Your task to perform on an android device: Search for "razer blade" on costco, select the first entry, and add it to the cart. Image 0: 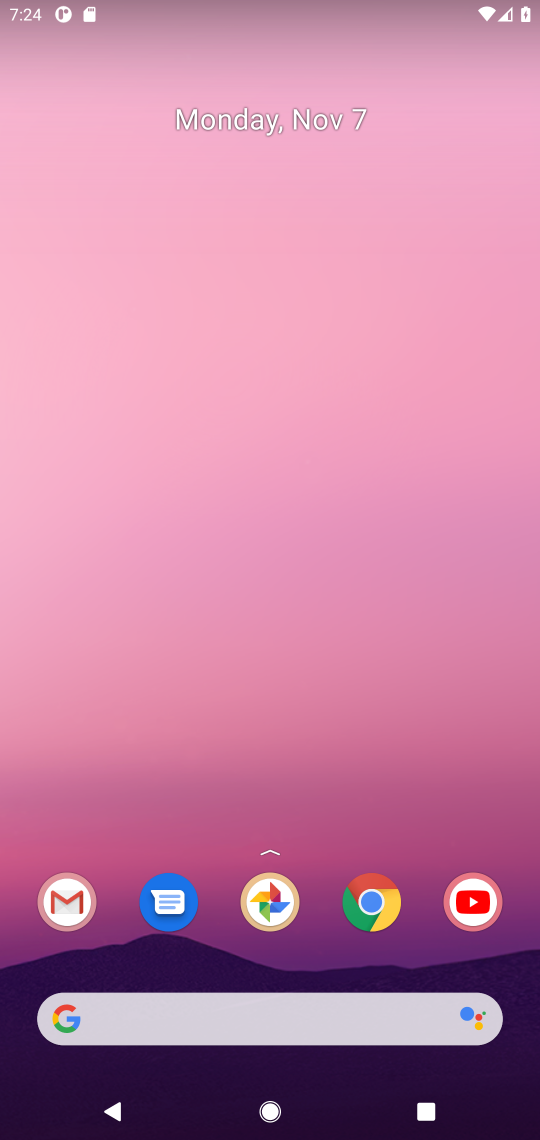
Step 0: click (371, 917)
Your task to perform on an android device: Search for "razer blade" on costco, select the first entry, and add it to the cart. Image 1: 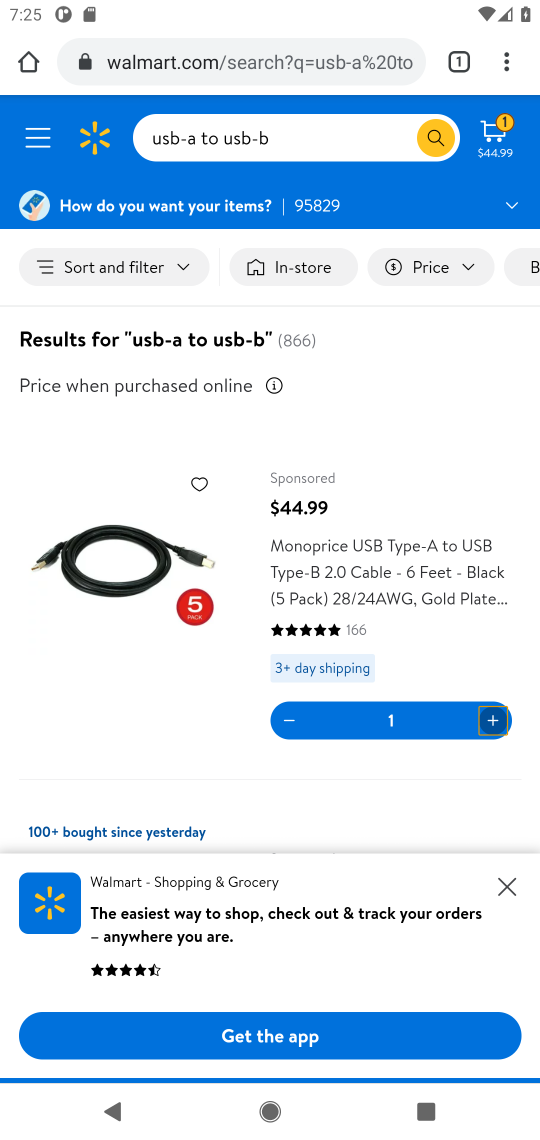
Step 1: click (219, 58)
Your task to perform on an android device: Search for "razer blade" on costco, select the first entry, and add it to the cart. Image 2: 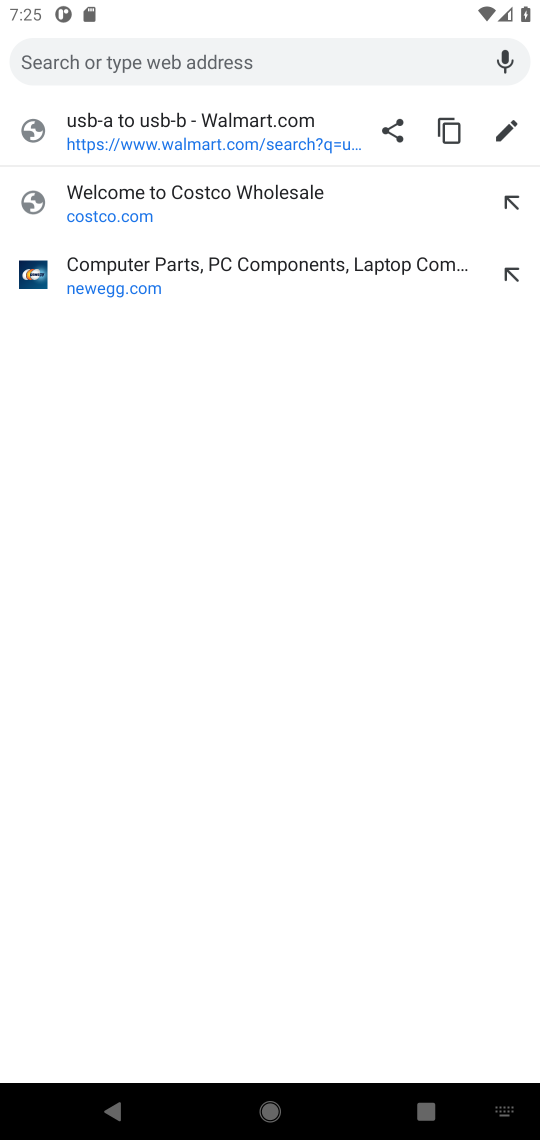
Step 2: click (130, 220)
Your task to perform on an android device: Search for "razer blade" on costco, select the first entry, and add it to the cart. Image 3: 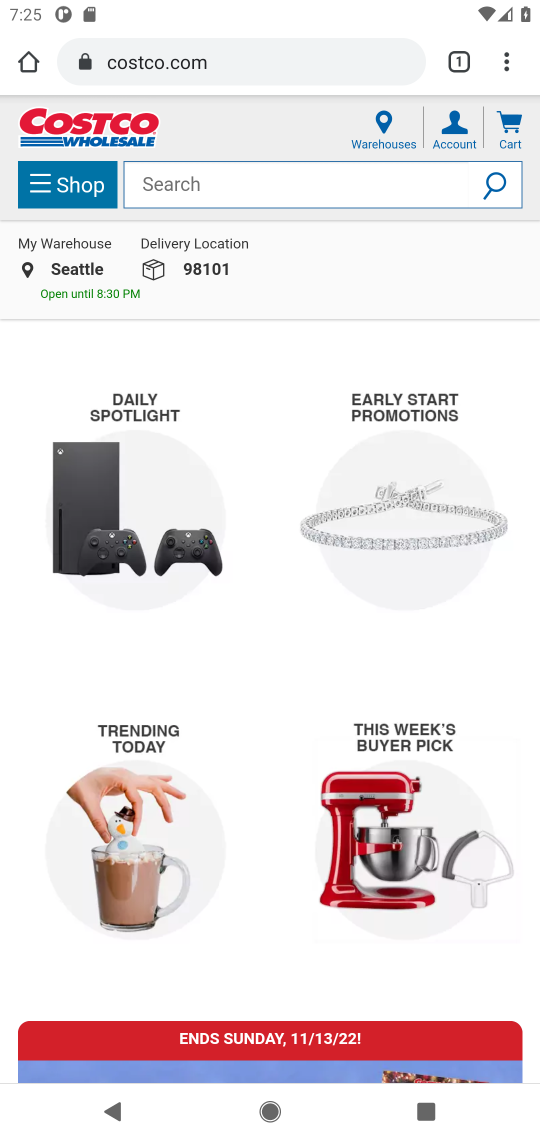
Step 3: click (235, 183)
Your task to perform on an android device: Search for "razer blade" on costco, select the first entry, and add it to the cart. Image 4: 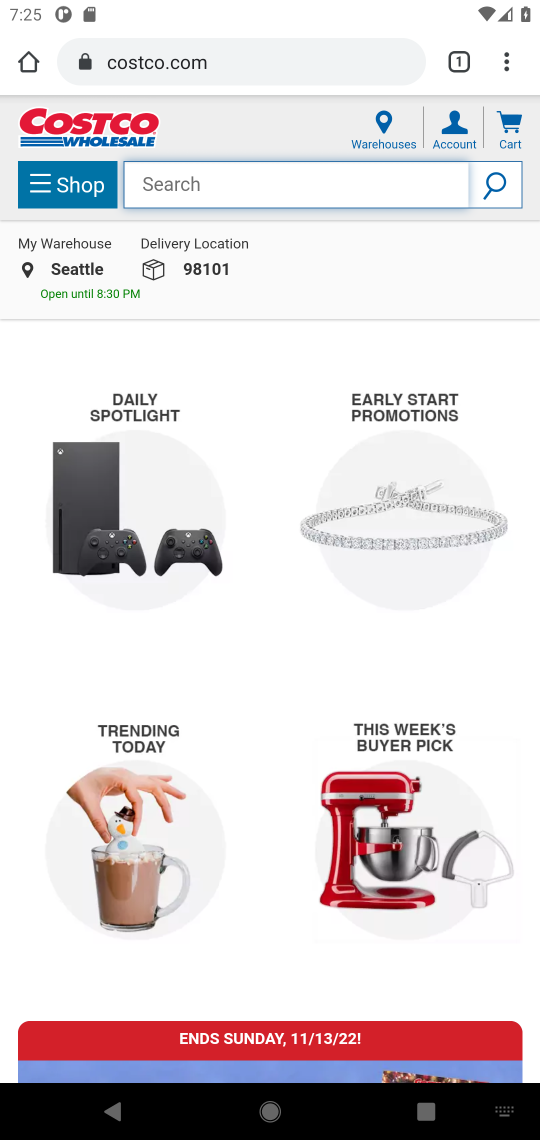
Step 4: type "razer blade"
Your task to perform on an android device: Search for "razer blade" on costco, select the first entry, and add it to the cart. Image 5: 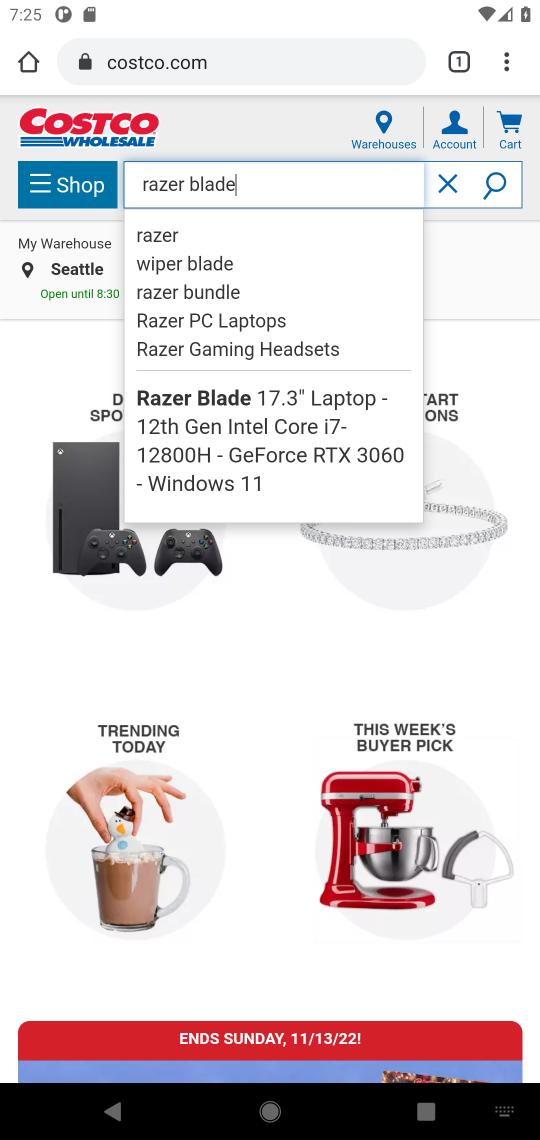
Step 5: click (487, 179)
Your task to perform on an android device: Search for "razer blade" on costco, select the first entry, and add it to the cart. Image 6: 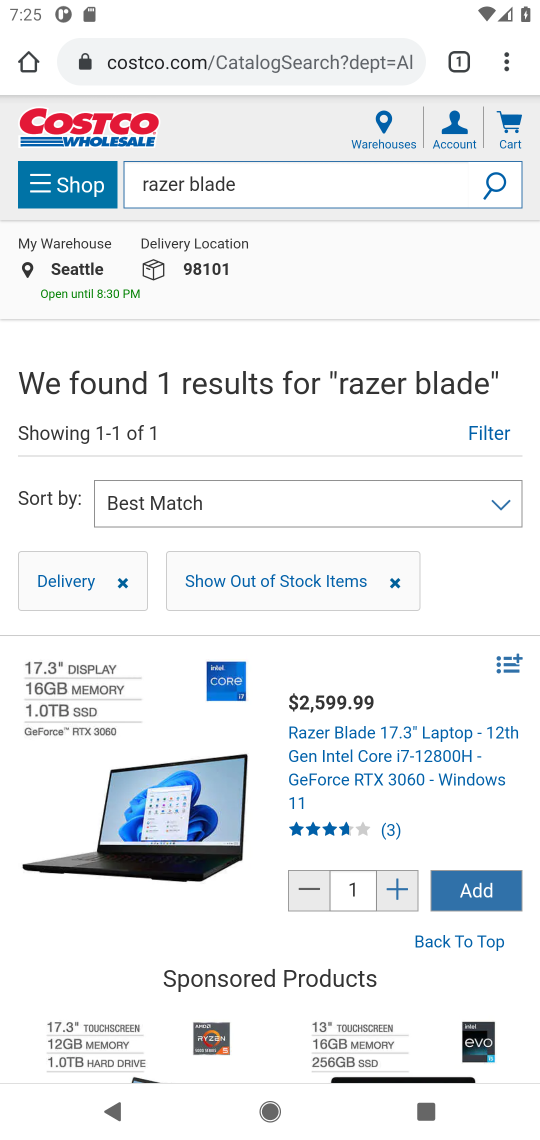
Step 6: click (478, 897)
Your task to perform on an android device: Search for "razer blade" on costco, select the first entry, and add it to the cart. Image 7: 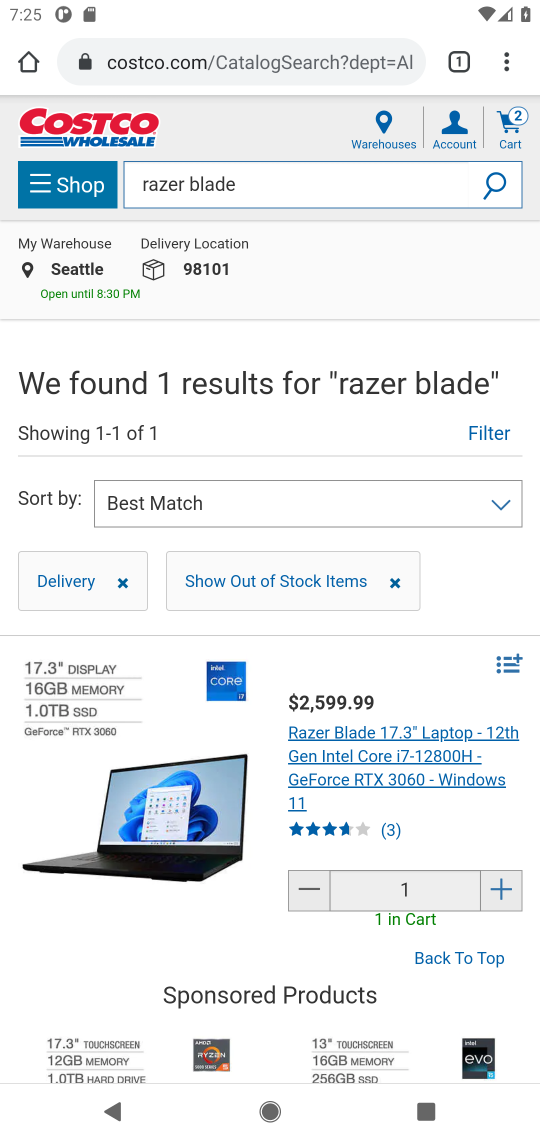
Step 7: task complete